Your task to perform on an android device: read, delete, or share a saved page in the chrome app Image 0: 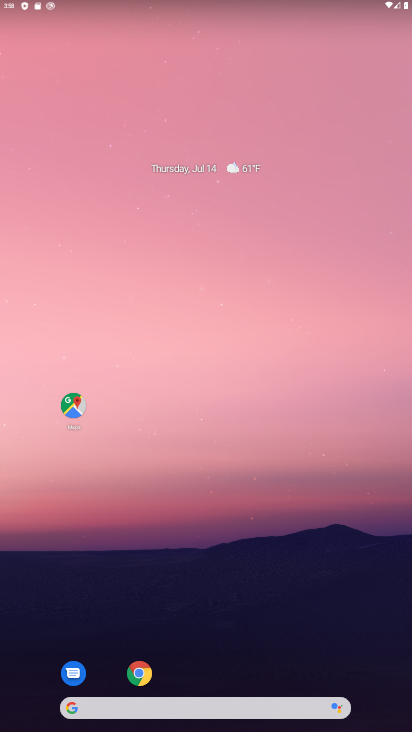
Step 0: click (136, 661)
Your task to perform on an android device: read, delete, or share a saved page in the chrome app Image 1: 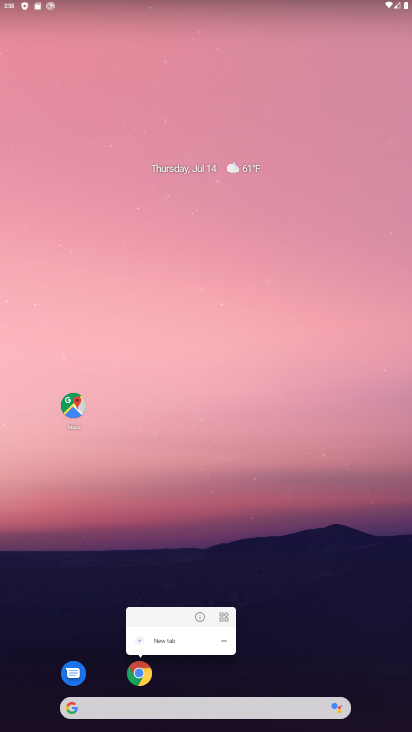
Step 1: click (148, 680)
Your task to perform on an android device: read, delete, or share a saved page in the chrome app Image 2: 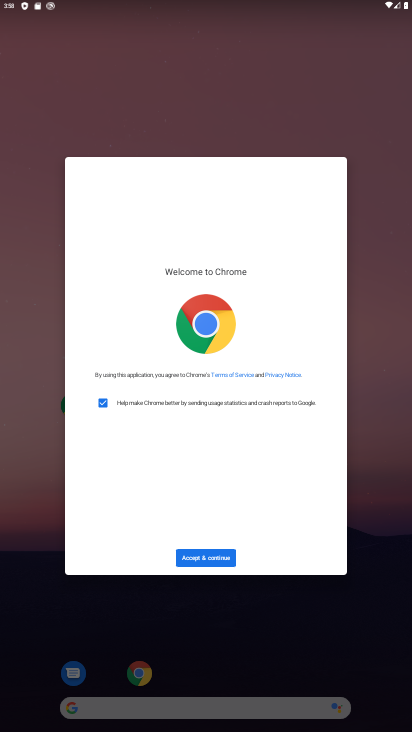
Step 2: click (198, 570)
Your task to perform on an android device: read, delete, or share a saved page in the chrome app Image 3: 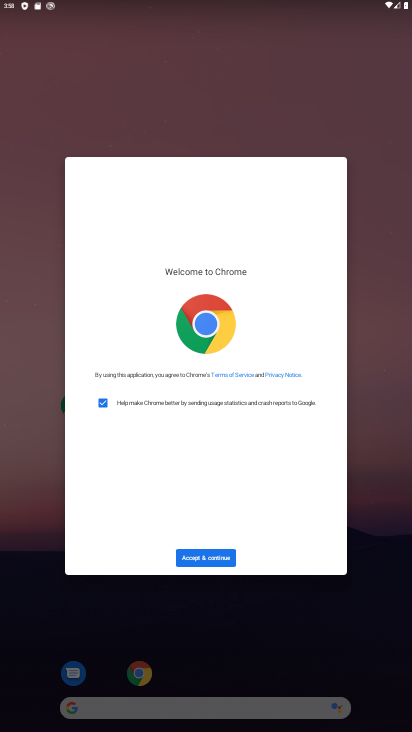
Step 3: click (214, 550)
Your task to perform on an android device: read, delete, or share a saved page in the chrome app Image 4: 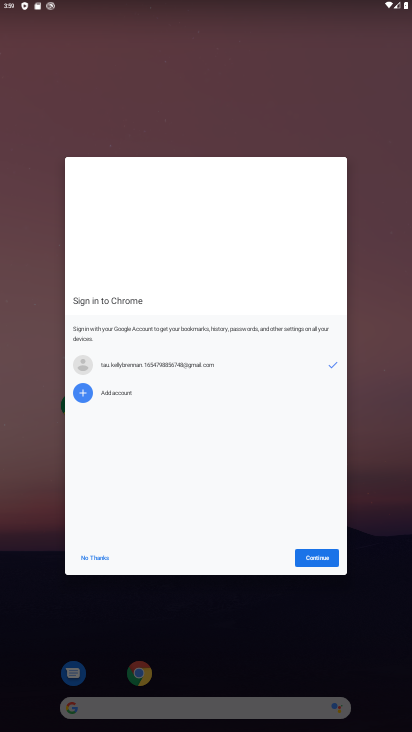
Step 4: click (306, 562)
Your task to perform on an android device: read, delete, or share a saved page in the chrome app Image 5: 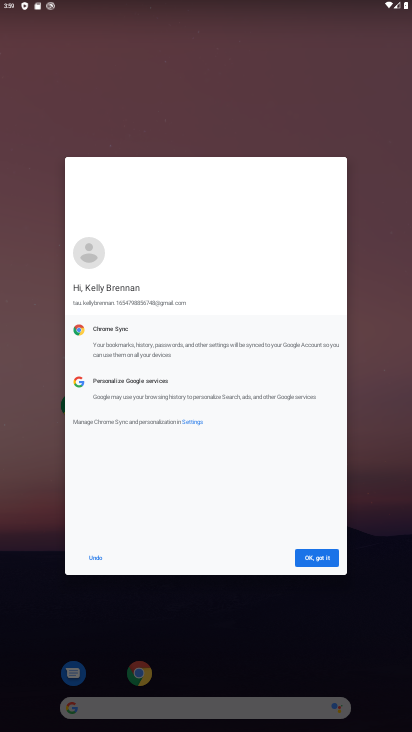
Step 5: click (316, 555)
Your task to perform on an android device: read, delete, or share a saved page in the chrome app Image 6: 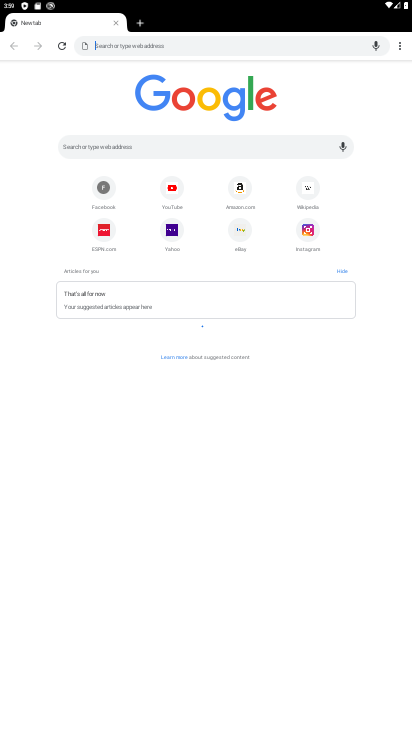
Step 6: click (403, 42)
Your task to perform on an android device: read, delete, or share a saved page in the chrome app Image 7: 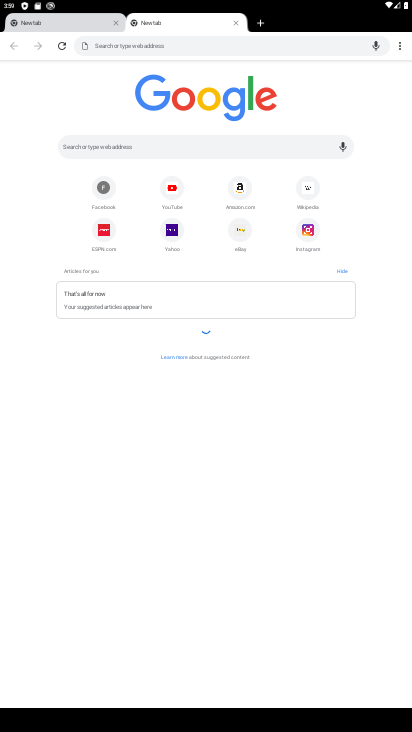
Step 7: task complete